Your task to perform on an android device: open wifi settings Image 0: 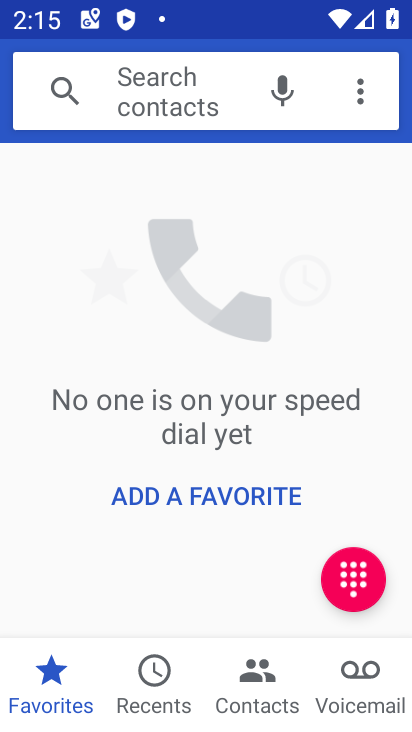
Step 0: press home button
Your task to perform on an android device: open wifi settings Image 1: 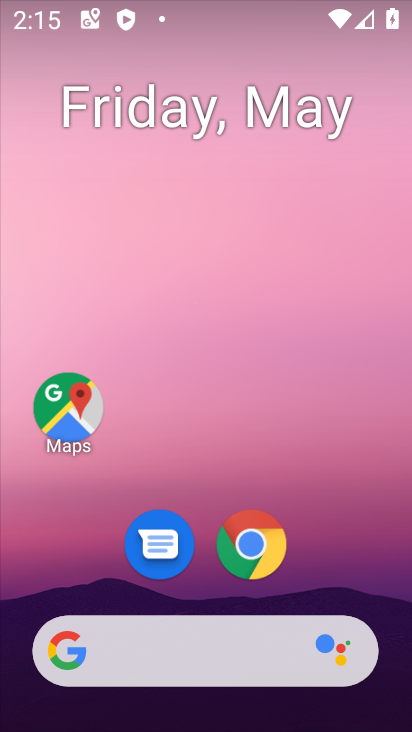
Step 1: drag from (217, 604) to (223, 199)
Your task to perform on an android device: open wifi settings Image 2: 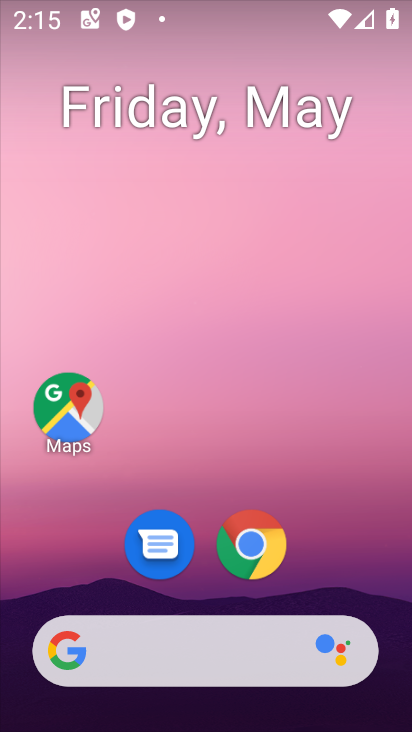
Step 2: drag from (210, 591) to (223, 171)
Your task to perform on an android device: open wifi settings Image 3: 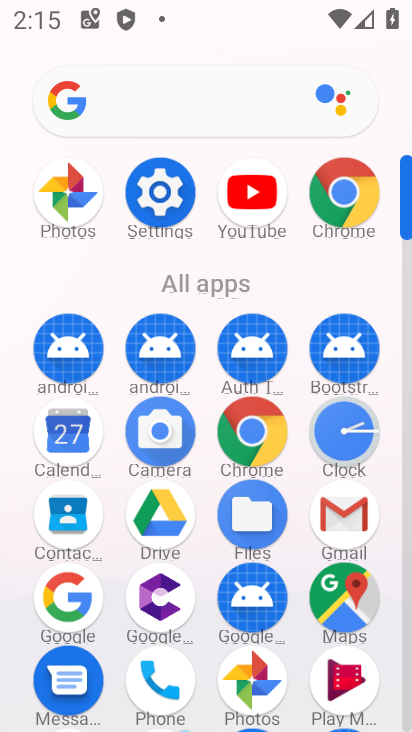
Step 3: click (145, 187)
Your task to perform on an android device: open wifi settings Image 4: 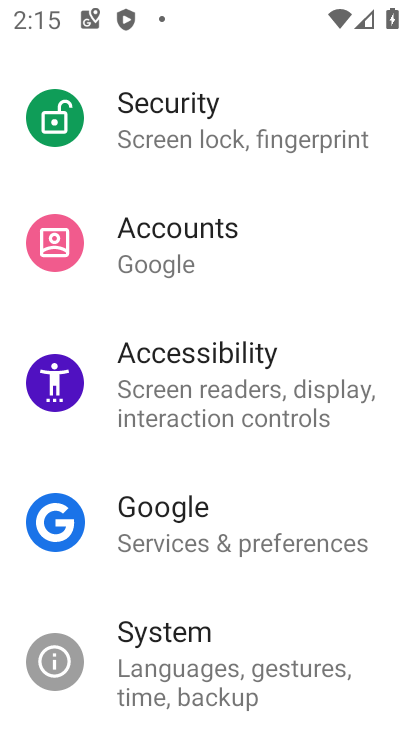
Step 4: drag from (194, 185) to (225, 500)
Your task to perform on an android device: open wifi settings Image 5: 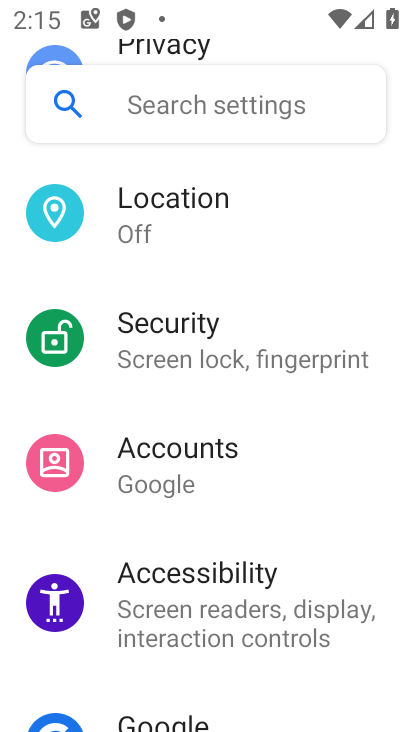
Step 5: drag from (234, 231) to (253, 572)
Your task to perform on an android device: open wifi settings Image 6: 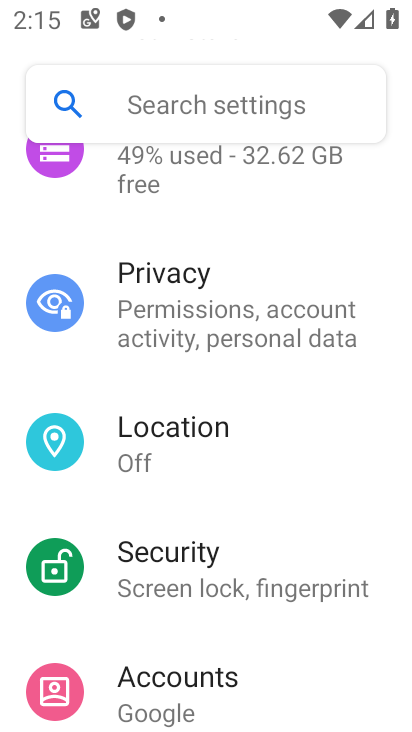
Step 6: drag from (225, 220) to (265, 538)
Your task to perform on an android device: open wifi settings Image 7: 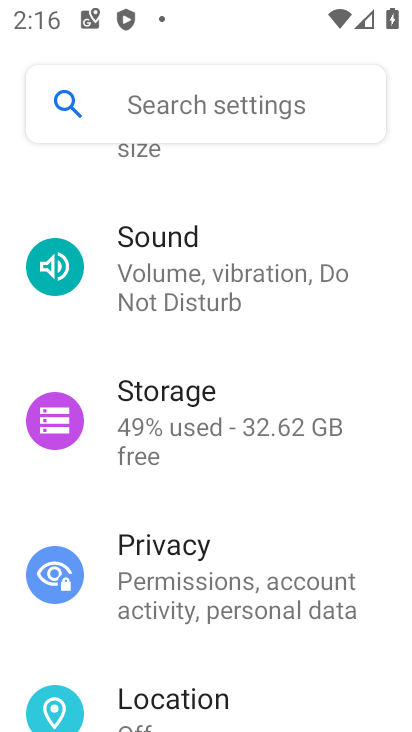
Step 7: drag from (209, 223) to (248, 455)
Your task to perform on an android device: open wifi settings Image 8: 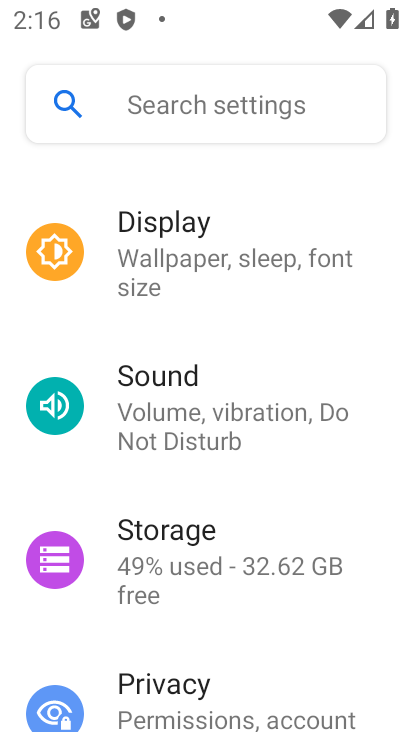
Step 8: drag from (262, 214) to (265, 477)
Your task to perform on an android device: open wifi settings Image 9: 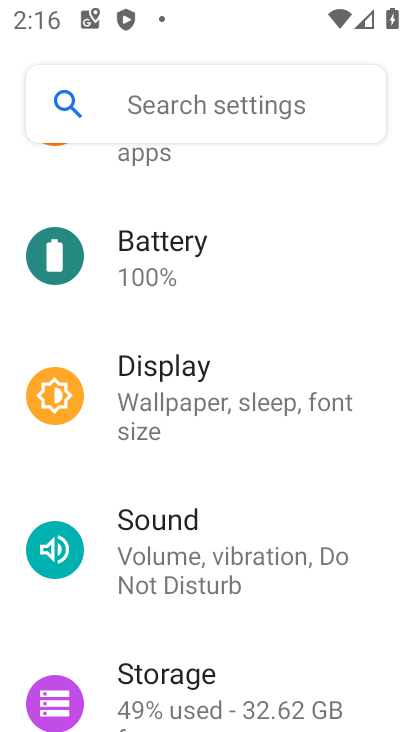
Step 9: drag from (199, 232) to (209, 495)
Your task to perform on an android device: open wifi settings Image 10: 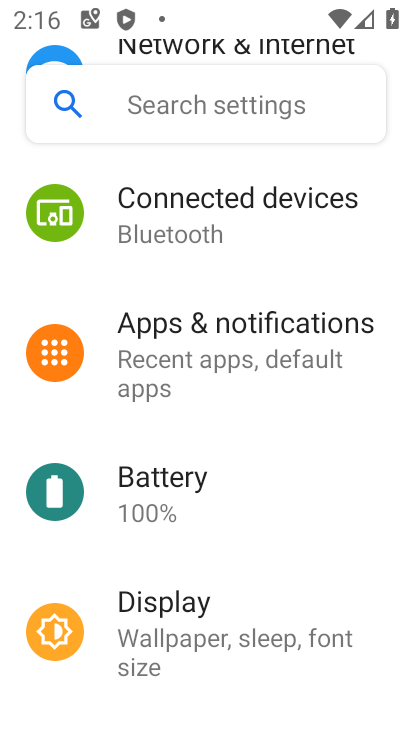
Step 10: drag from (240, 223) to (290, 553)
Your task to perform on an android device: open wifi settings Image 11: 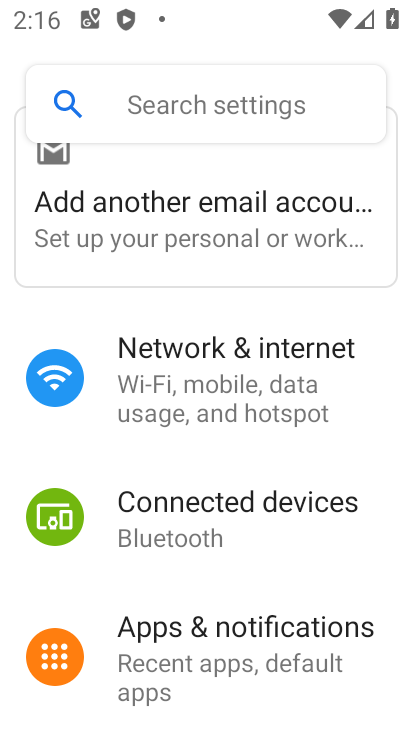
Step 11: click (230, 361)
Your task to perform on an android device: open wifi settings Image 12: 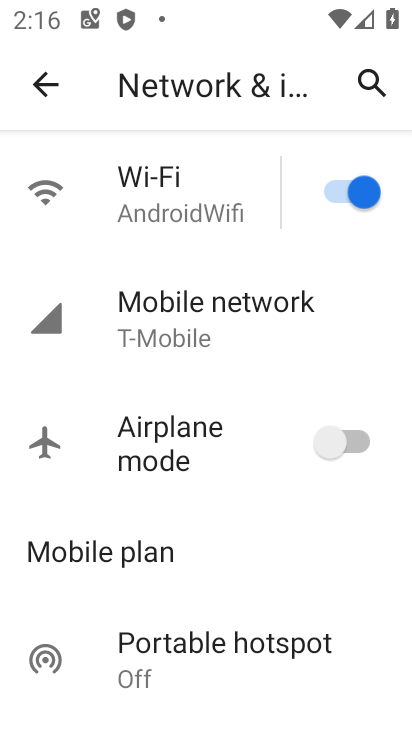
Step 12: click (114, 214)
Your task to perform on an android device: open wifi settings Image 13: 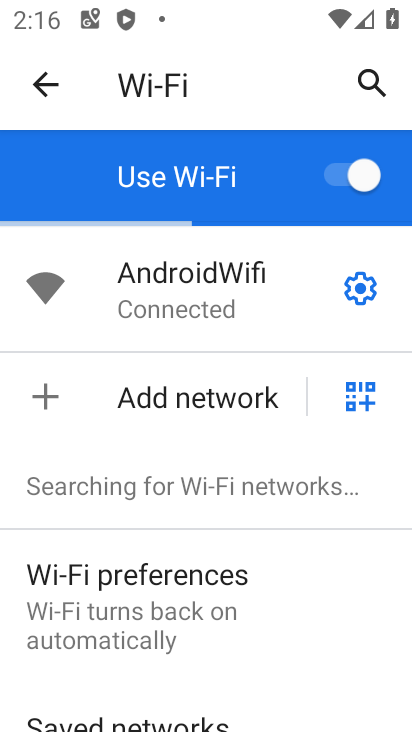
Step 13: task complete